Your task to perform on an android device: toggle pop-ups in chrome Image 0: 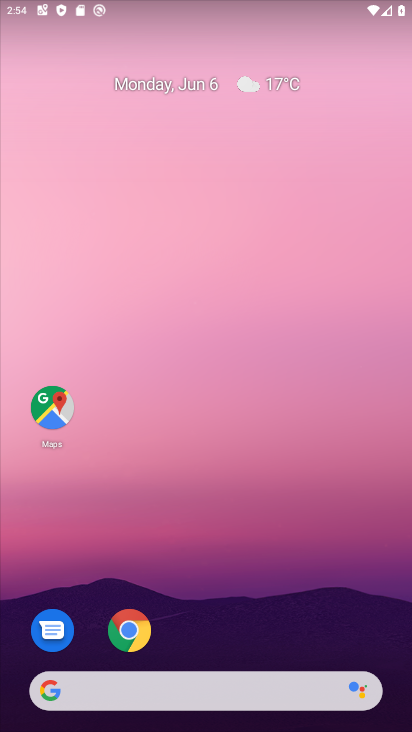
Step 0: click (134, 629)
Your task to perform on an android device: toggle pop-ups in chrome Image 1: 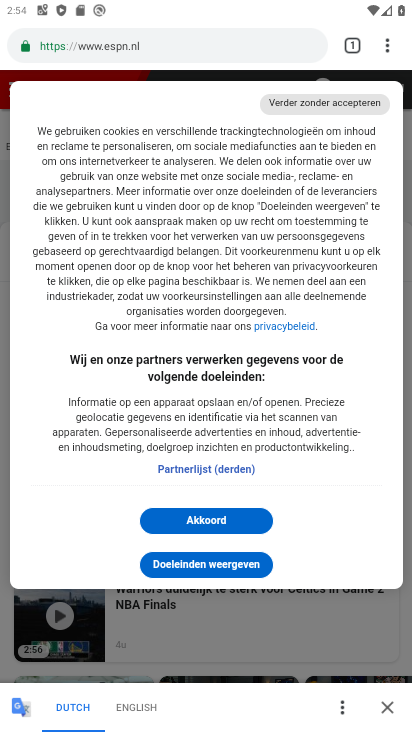
Step 1: drag from (387, 44) to (238, 543)
Your task to perform on an android device: toggle pop-ups in chrome Image 2: 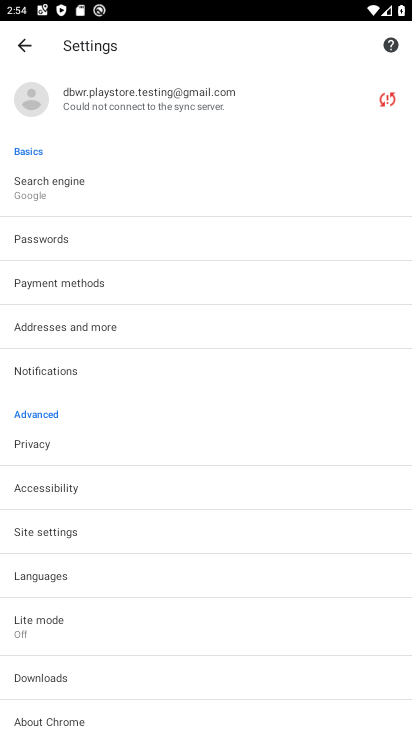
Step 2: click (53, 531)
Your task to perform on an android device: toggle pop-ups in chrome Image 3: 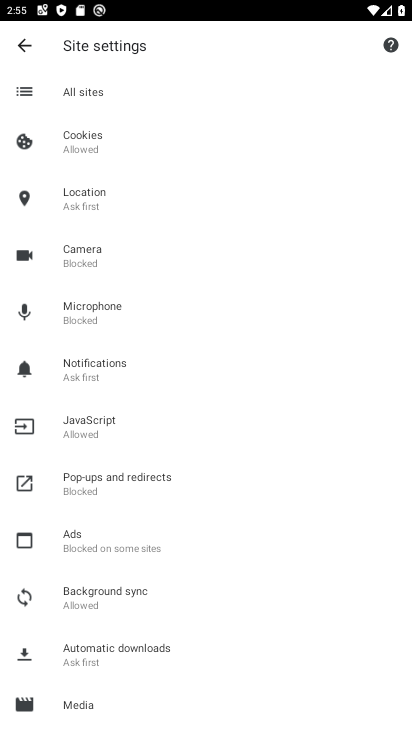
Step 3: click (101, 476)
Your task to perform on an android device: toggle pop-ups in chrome Image 4: 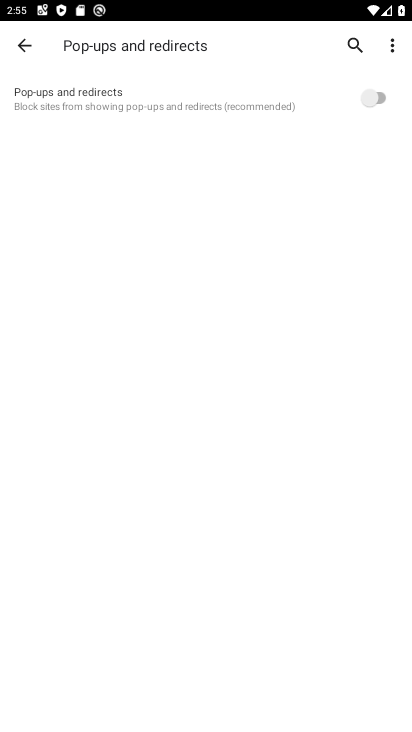
Step 4: click (370, 95)
Your task to perform on an android device: toggle pop-ups in chrome Image 5: 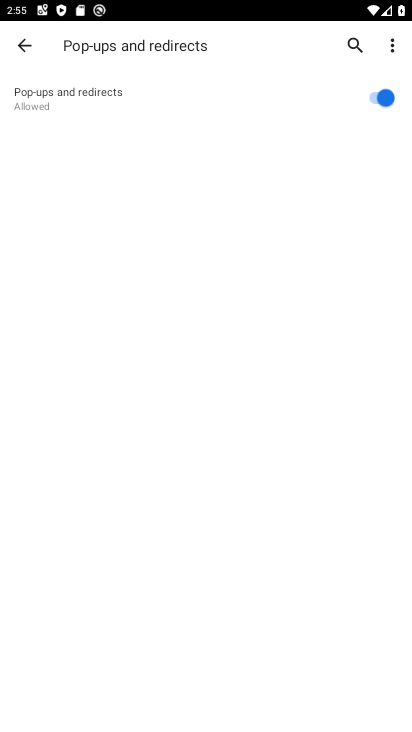
Step 5: task complete